Your task to perform on an android device: Open Android settings Image 0: 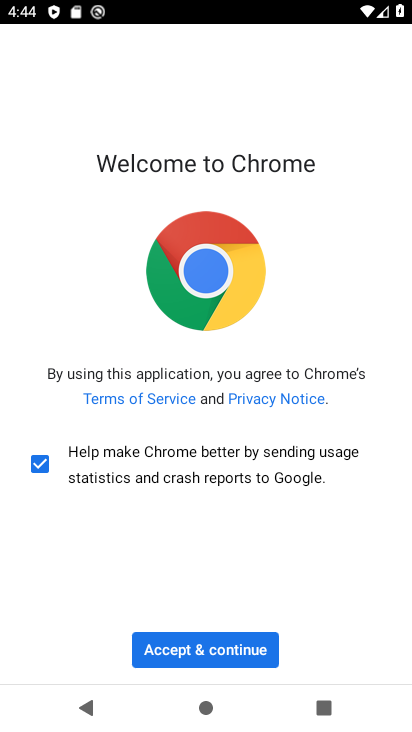
Step 0: click (241, 649)
Your task to perform on an android device: Open Android settings Image 1: 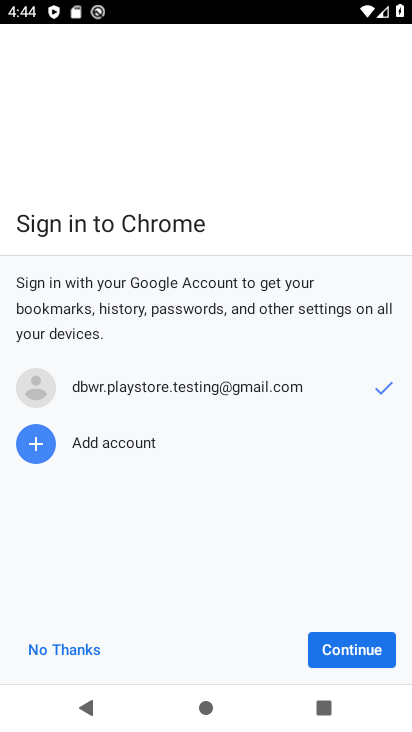
Step 1: click (67, 641)
Your task to perform on an android device: Open Android settings Image 2: 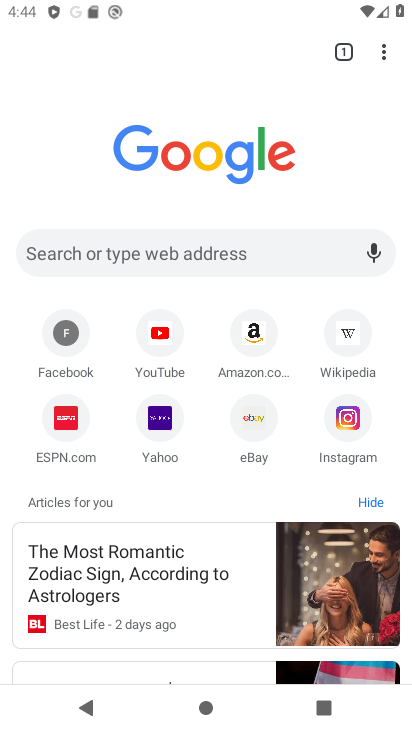
Step 2: press home button
Your task to perform on an android device: Open Android settings Image 3: 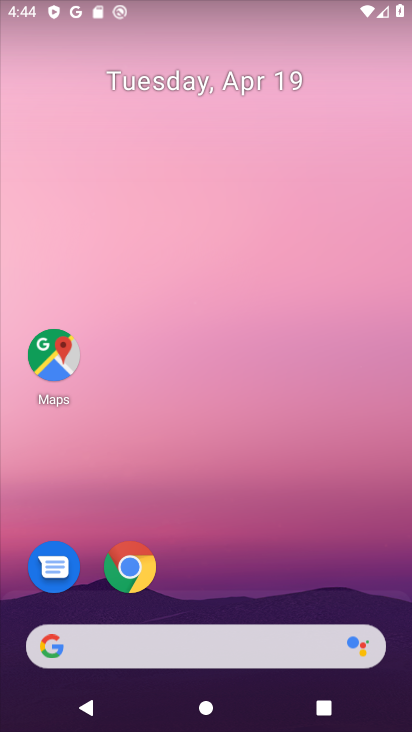
Step 3: drag from (243, 614) to (256, 4)
Your task to perform on an android device: Open Android settings Image 4: 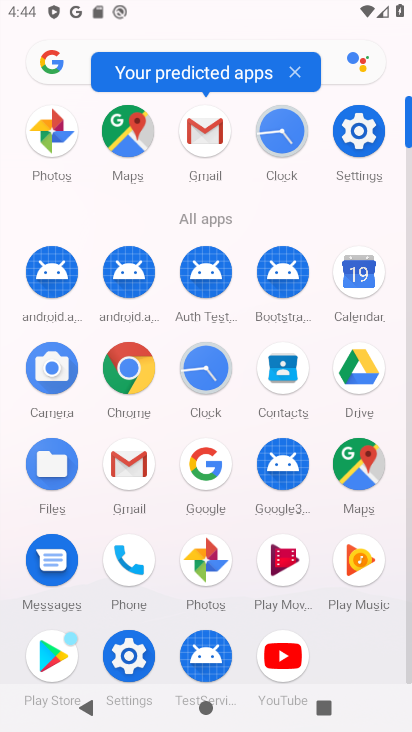
Step 4: click (366, 132)
Your task to perform on an android device: Open Android settings Image 5: 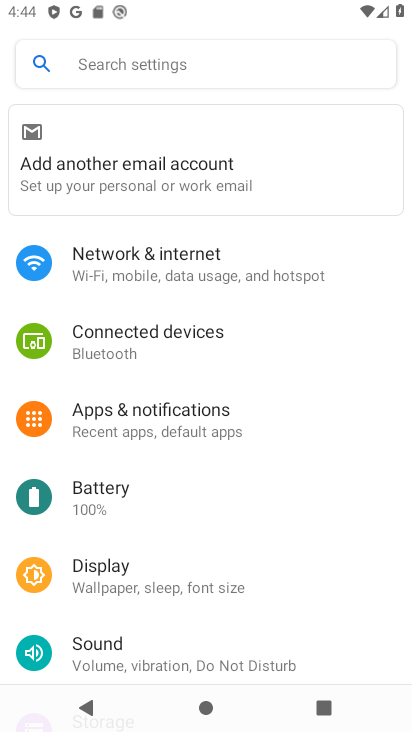
Step 5: drag from (185, 662) to (149, 144)
Your task to perform on an android device: Open Android settings Image 6: 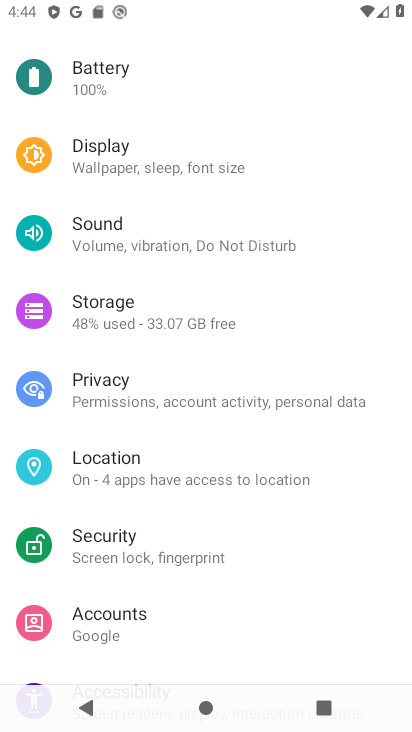
Step 6: drag from (232, 611) to (273, 89)
Your task to perform on an android device: Open Android settings Image 7: 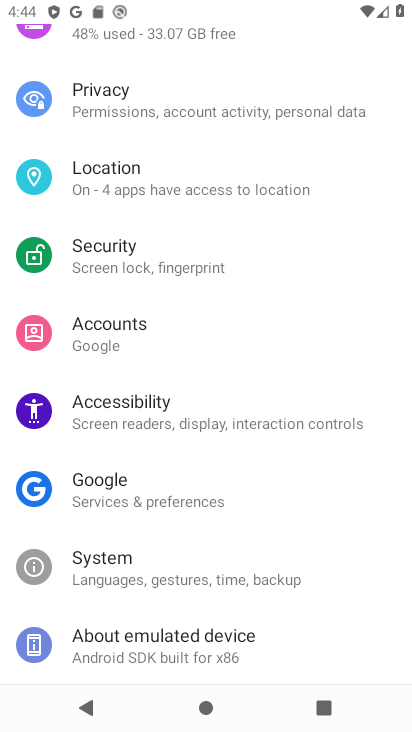
Step 7: click (217, 639)
Your task to perform on an android device: Open Android settings Image 8: 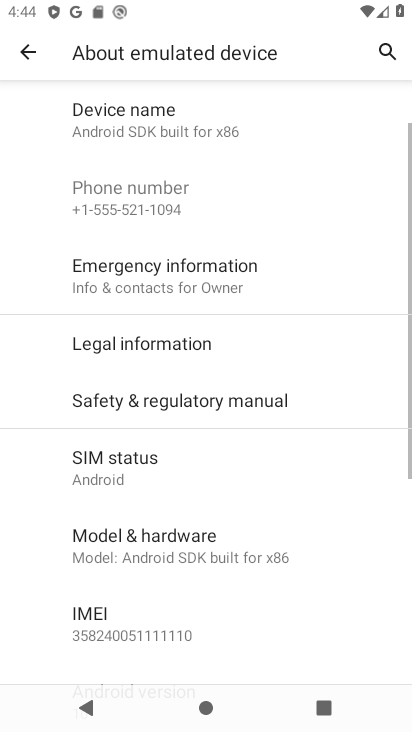
Step 8: drag from (234, 525) to (280, 96)
Your task to perform on an android device: Open Android settings Image 9: 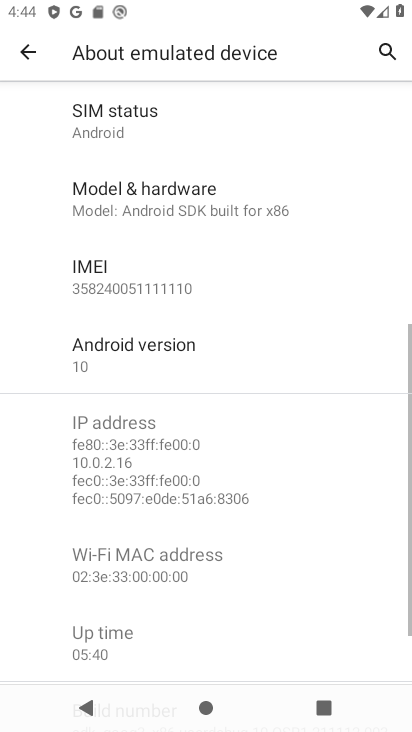
Step 9: click (146, 373)
Your task to perform on an android device: Open Android settings Image 10: 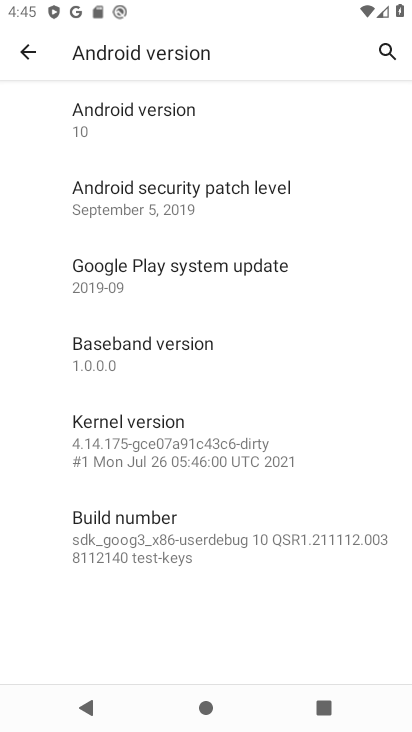
Step 10: task complete